Your task to perform on an android device: Open Google Chrome and click the shortcut for Amazon.com Image 0: 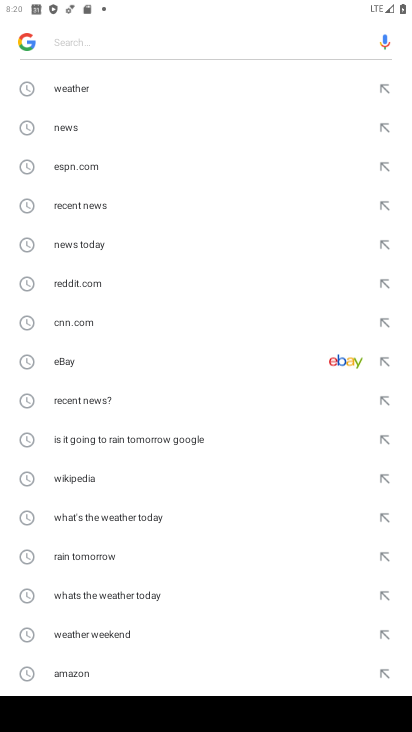
Step 0: press home button
Your task to perform on an android device: Open Google Chrome and click the shortcut for Amazon.com Image 1: 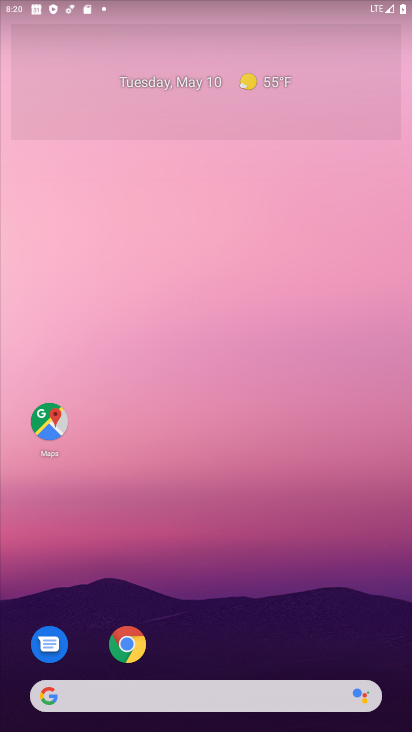
Step 1: drag from (188, 503) to (179, 167)
Your task to perform on an android device: Open Google Chrome and click the shortcut for Amazon.com Image 2: 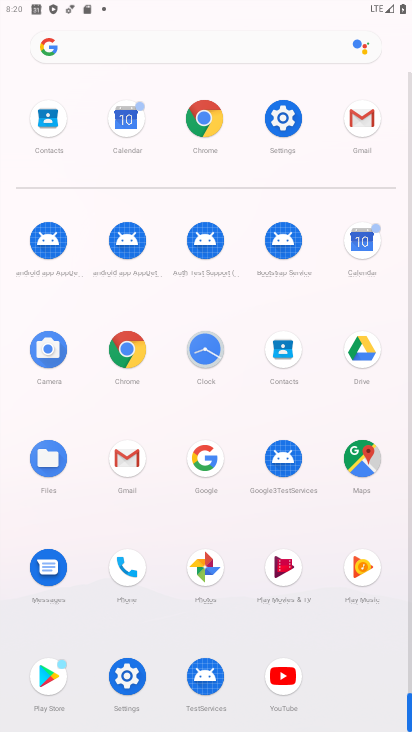
Step 2: click (208, 151)
Your task to perform on an android device: Open Google Chrome and click the shortcut for Amazon.com Image 3: 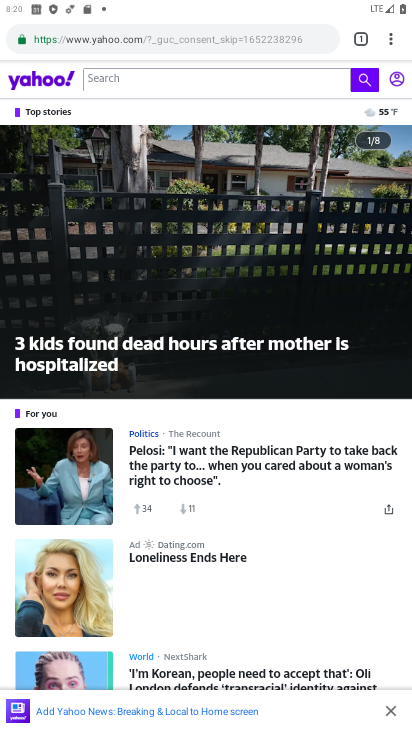
Step 3: click (255, 34)
Your task to perform on an android device: Open Google Chrome and click the shortcut for Amazon.com Image 4: 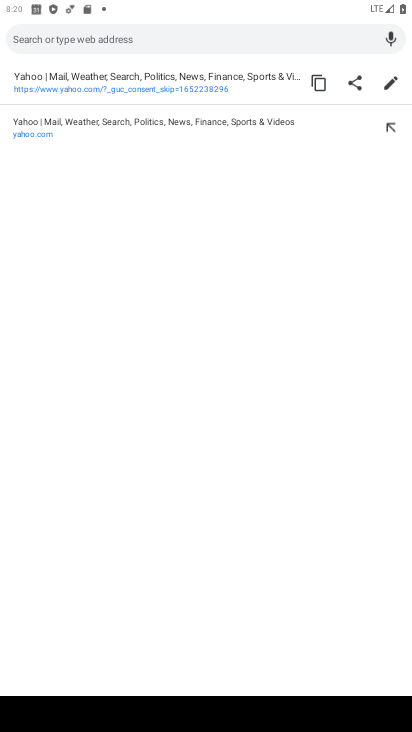
Step 4: type "amazon.com"
Your task to perform on an android device: Open Google Chrome and click the shortcut for Amazon.com Image 5: 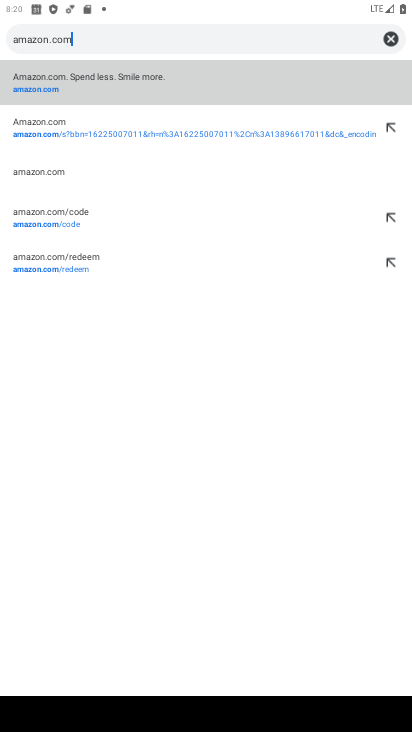
Step 5: click (110, 88)
Your task to perform on an android device: Open Google Chrome and click the shortcut for Amazon.com Image 6: 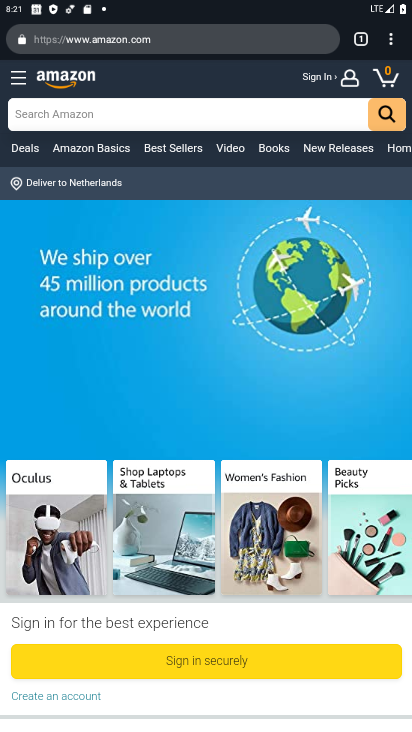
Step 6: task complete